Your task to perform on an android device: change keyboard looks Image 0: 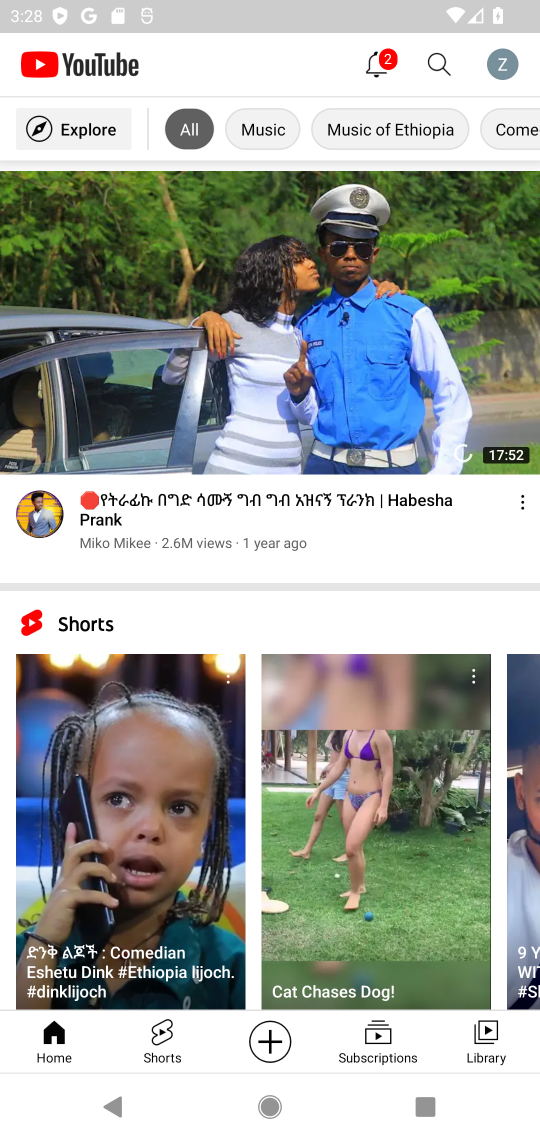
Step 0: press home button
Your task to perform on an android device: change keyboard looks Image 1: 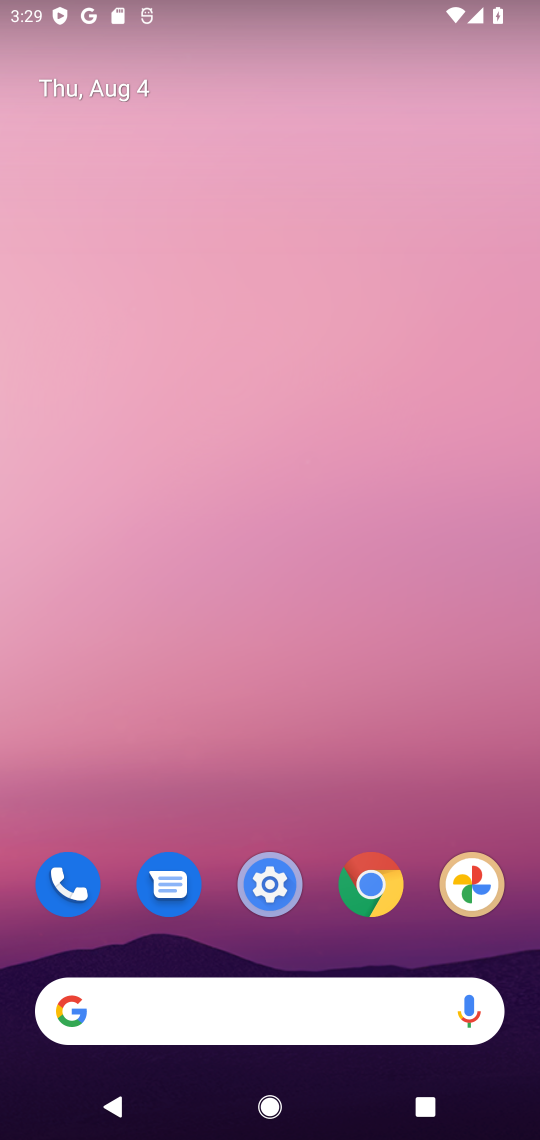
Step 1: drag from (224, 933) to (334, 540)
Your task to perform on an android device: change keyboard looks Image 2: 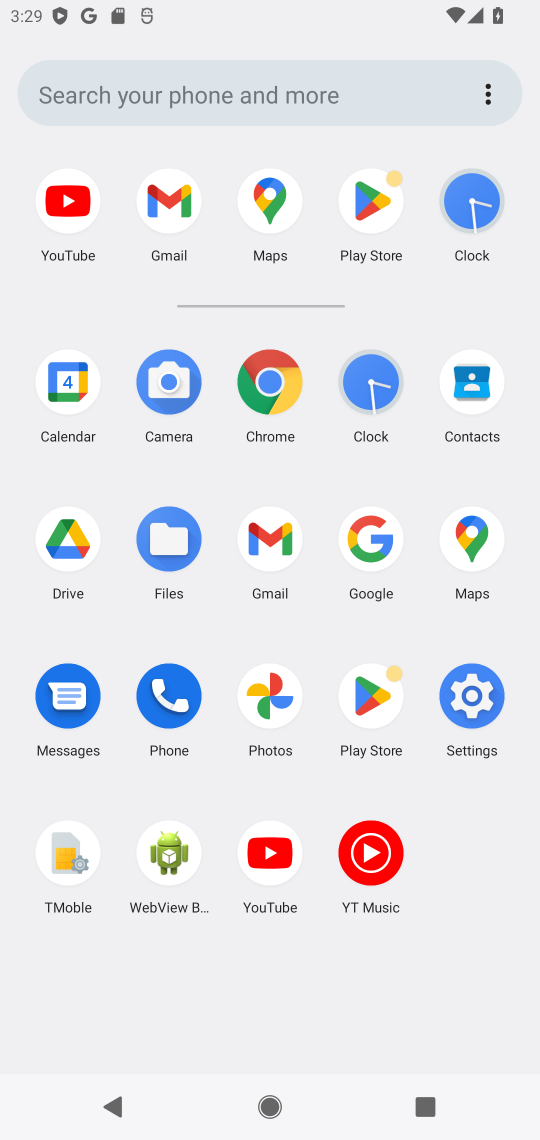
Step 2: click (467, 691)
Your task to perform on an android device: change keyboard looks Image 3: 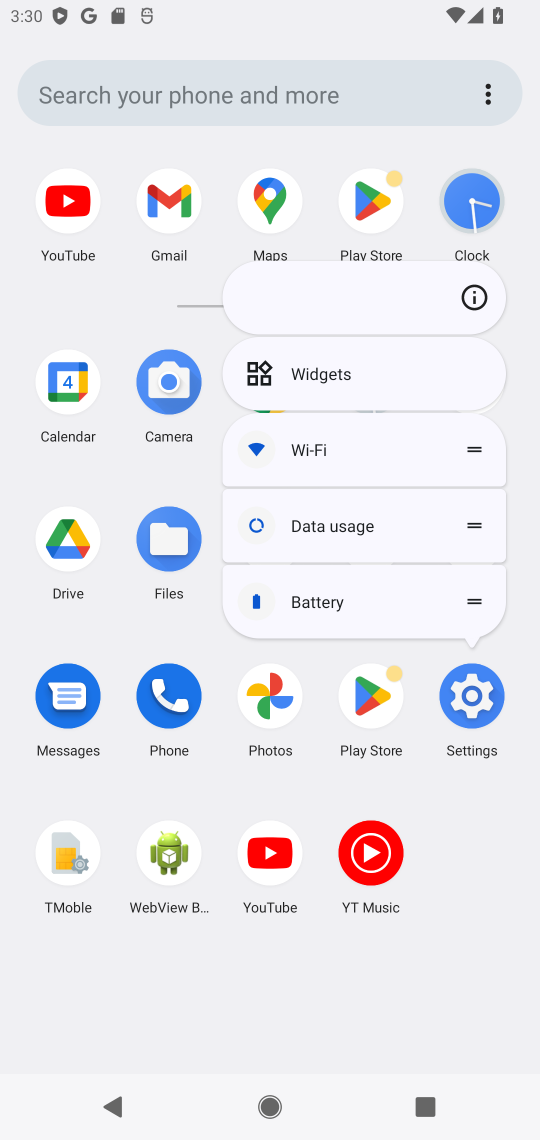
Step 3: click (480, 298)
Your task to perform on an android device: change keyboard looks Image 4: 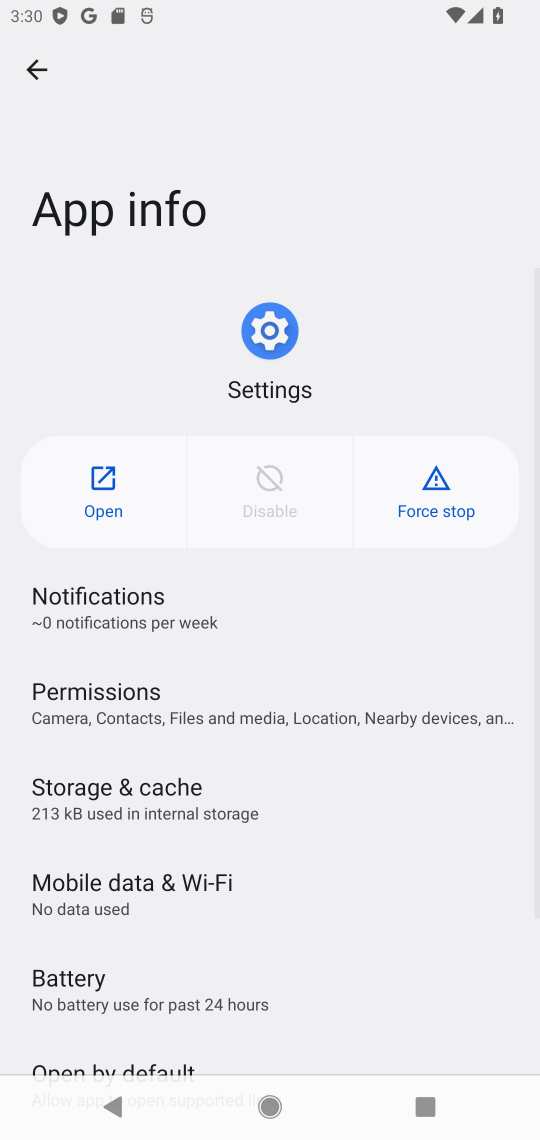
Step 4: click (91, 499)
Your task to perform on an android device: change keyboard looks Image 5: 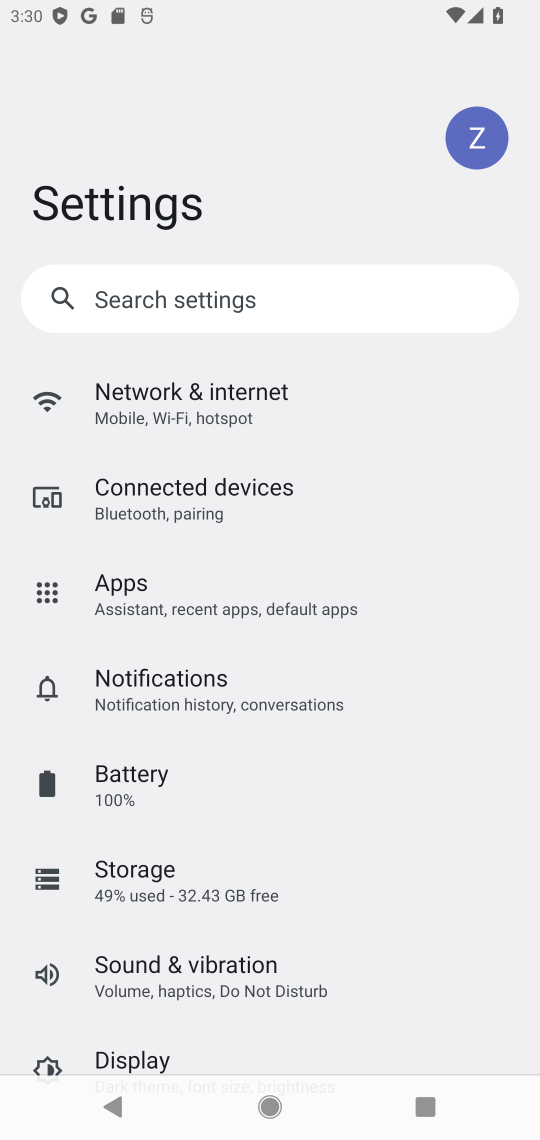
Step 5: drag from (226, 808) to (246, 35)
Your task to perform on an android device: change keyboard looks Image 6: 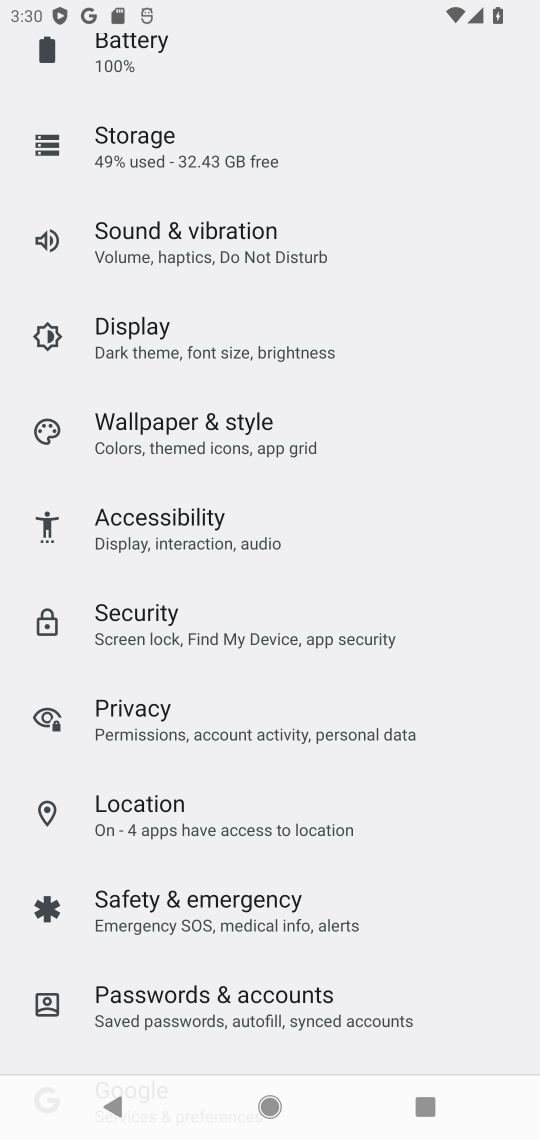
Step 6: drag from (190, 963) to (243, 130)
Your task to perform on an android device: change keyboard looks Image 7: 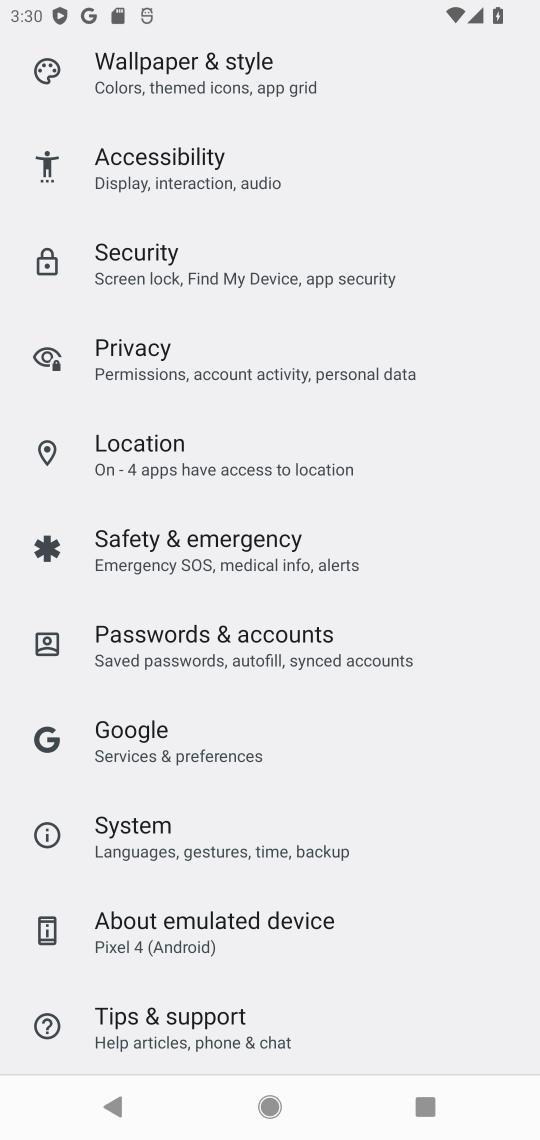
Step 7: click (186, 842)
Your task to perform on an android device: change keyboard looks Image 8: 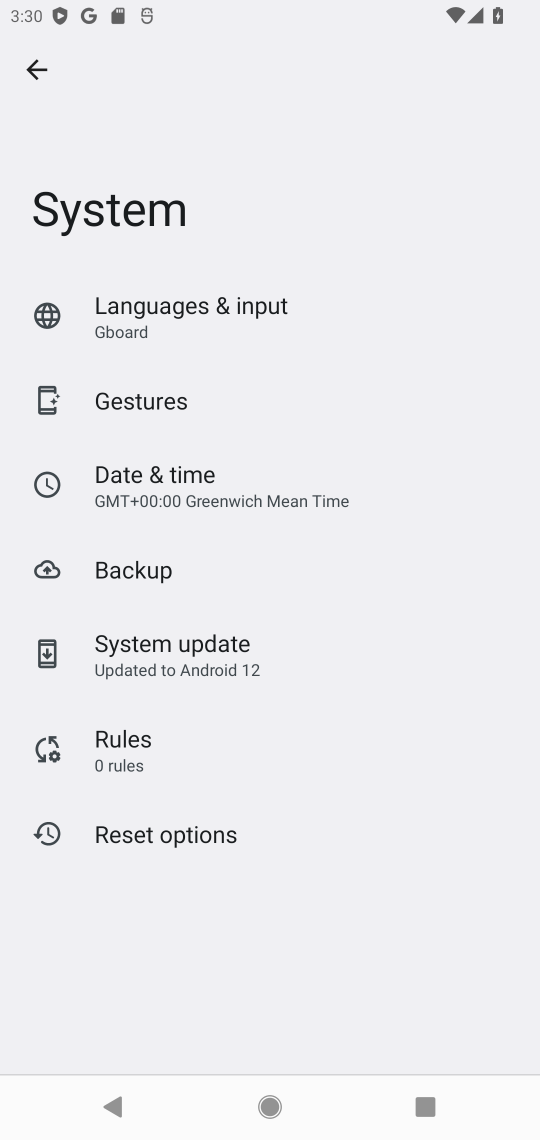
Step 8: click (151, 342)
Your task to perform on an android device: change keyboard looks Image 9: 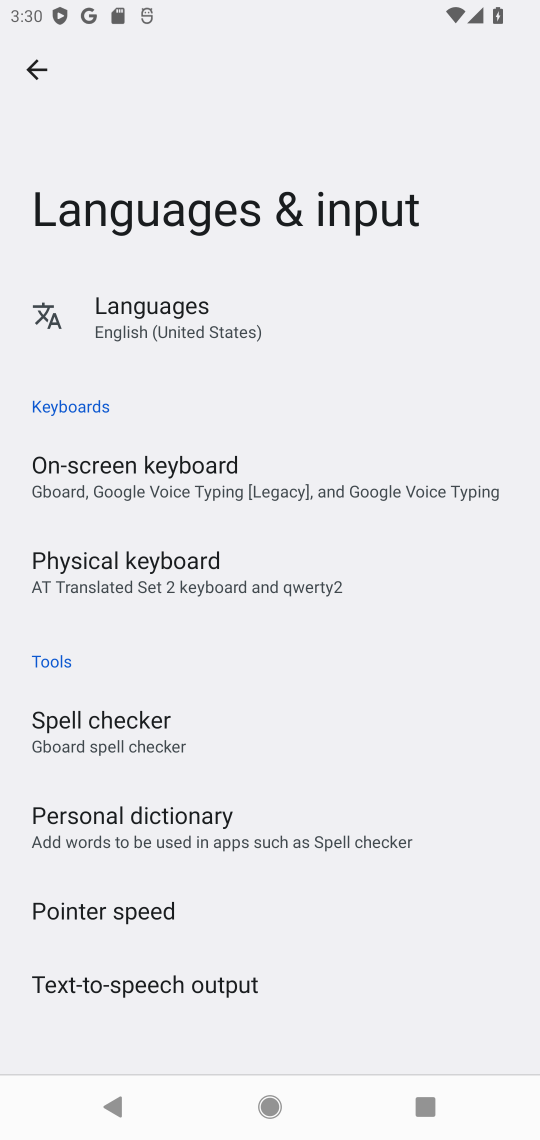
Step 9: click (183, 497)
Your task to perform on an android device: change keyboard looks Image 10: 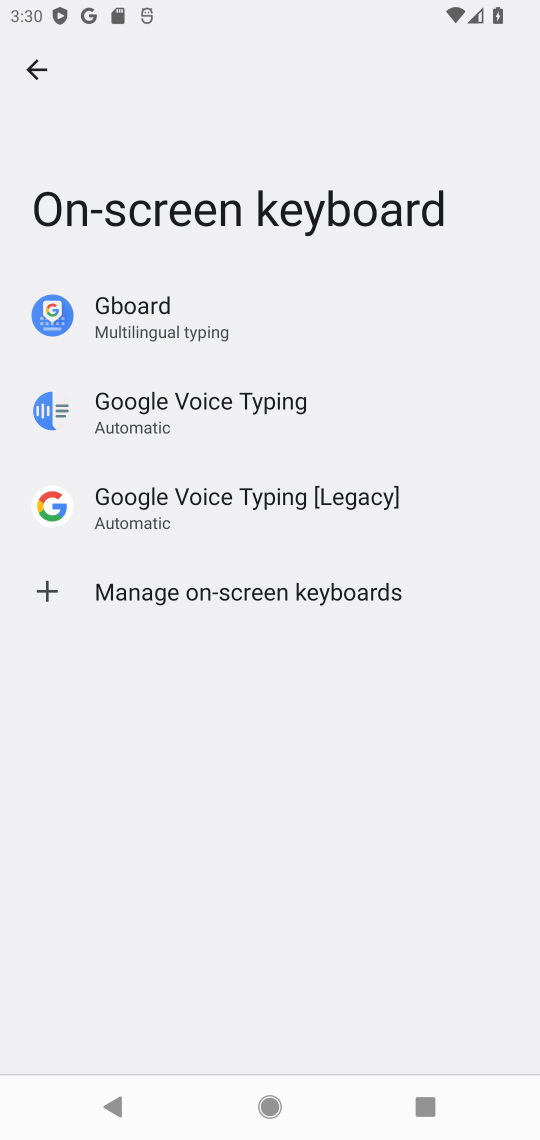
Step 10: click (228, 303)
Your task to perform on an android device: change keyboard looks Image 11: 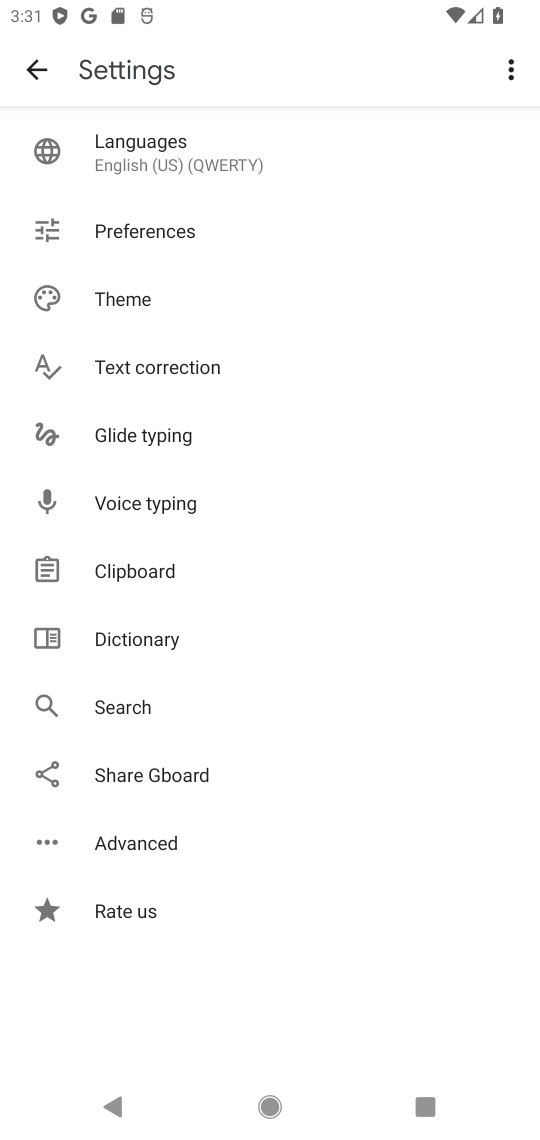
Step 11: click (139, 312)
Your task to perform on an android device: change keyboard looks Image 12: 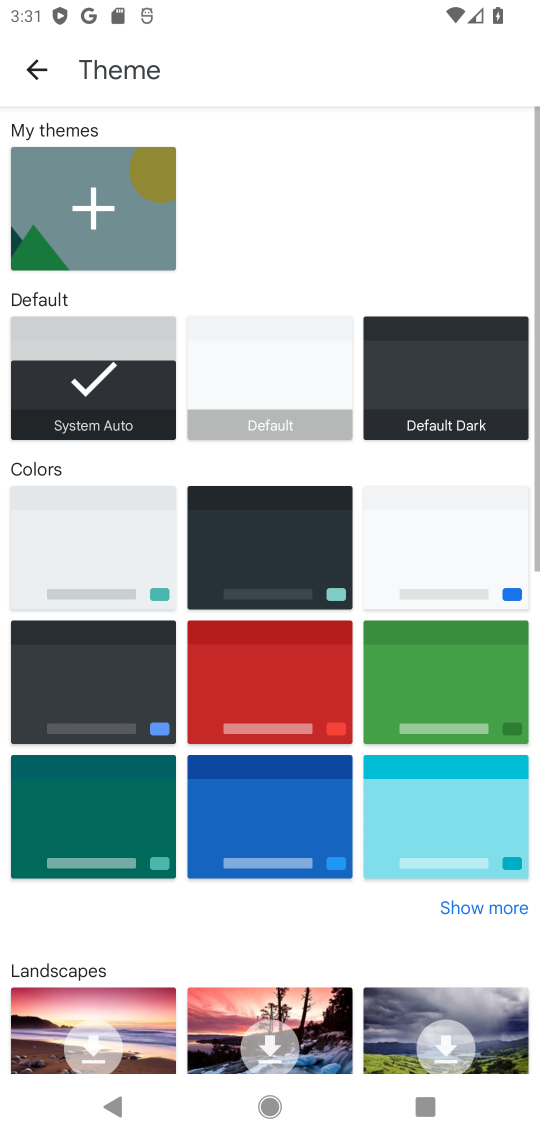
Step 12: click (413, 349)
Your task to perform on an android device: change keyboard looks Image 13: 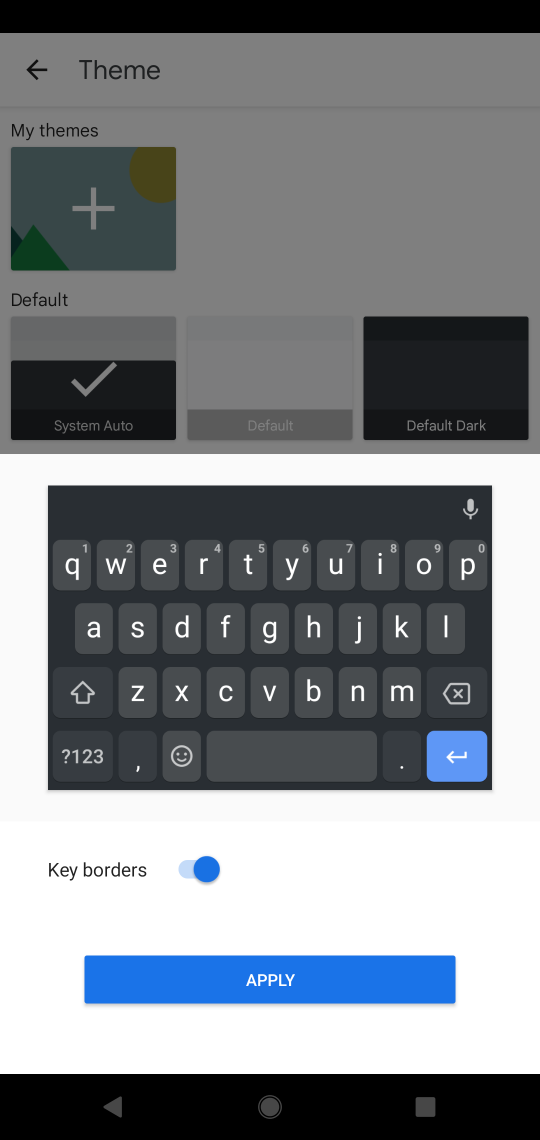
Step 13: click (222, 977)
Your task to perform on an android device: change keyboard looks Image 14: 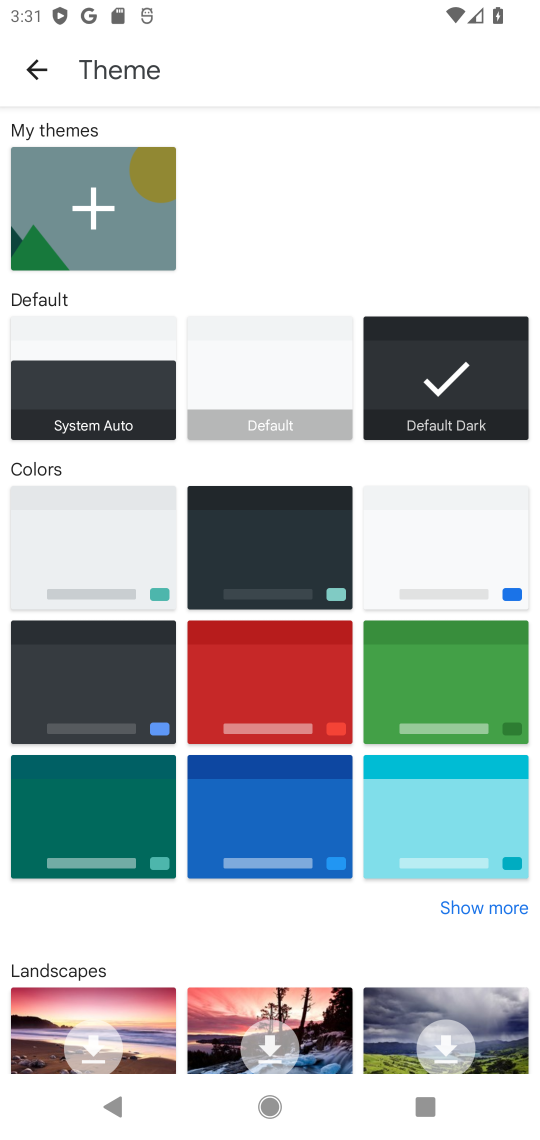
Step 14: task complete